Your task to perform on an android device: Open the web browser Image 0: 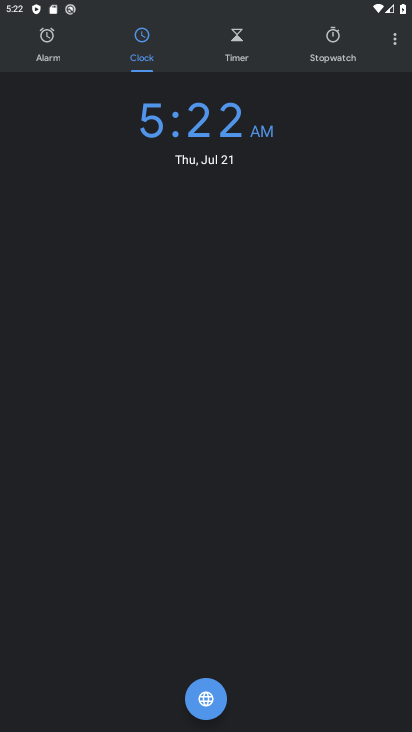
Step 0: press home button
Your task to perform on an android device: Open the web browser Image 1: 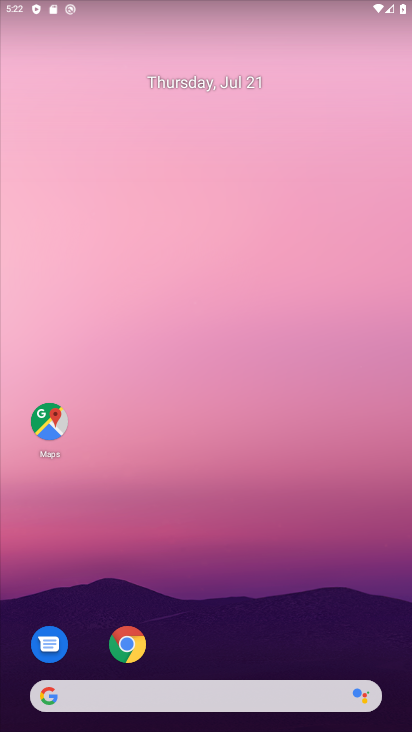
Step 1: click (134, 643)
Your task to perform on an android device: Open the web browser Image 2: 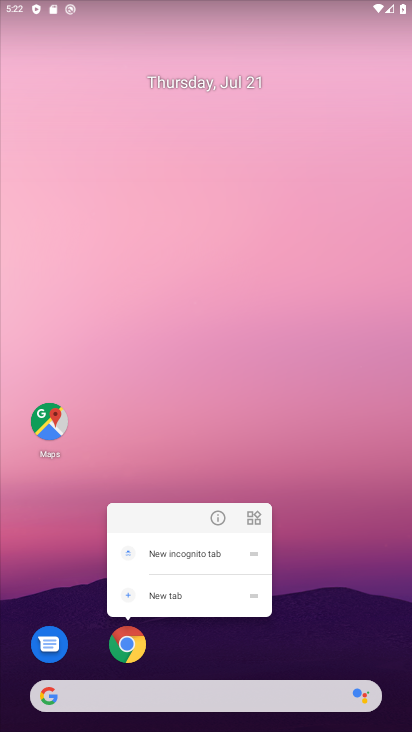
Step 2: click (362, 287)
Your task to perform on an android device: Open the web browser Image 3: 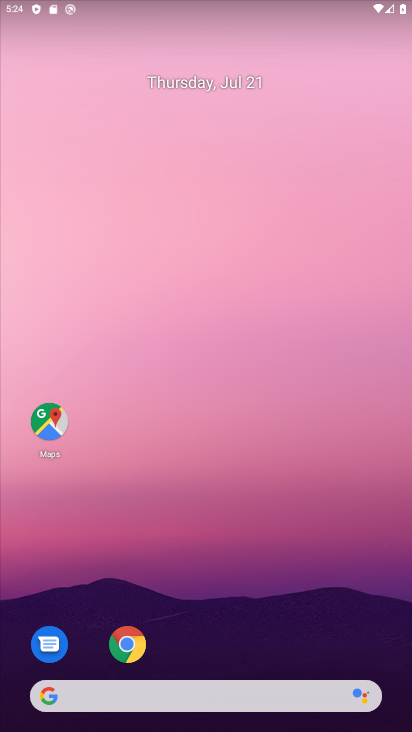
Step 3: click (127, 646)
Your task to perform on an android device: Open the web browser Image 4: 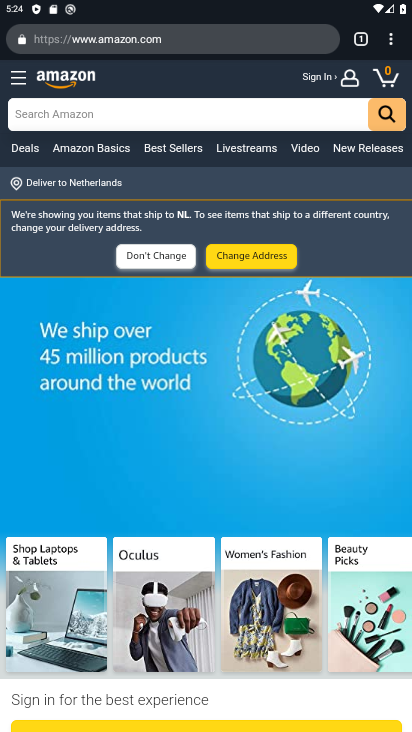
Step 4: click (259, 109)
Your task to perform on an android device: Open the web browser Image 5: 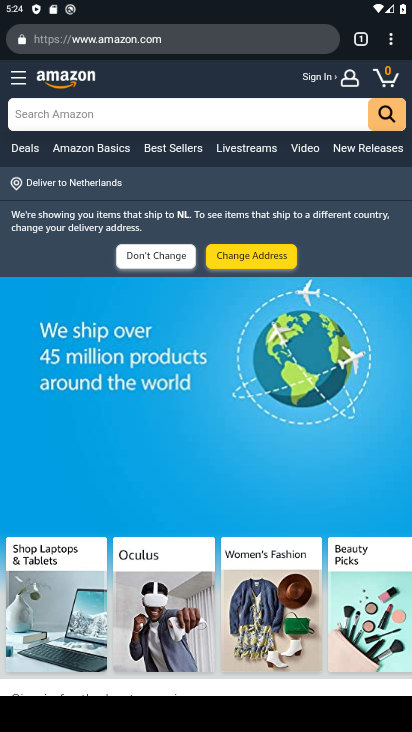
Step 5: task complete